Your task to perform on an android device: delete browsing data in the chrome app Image 0: 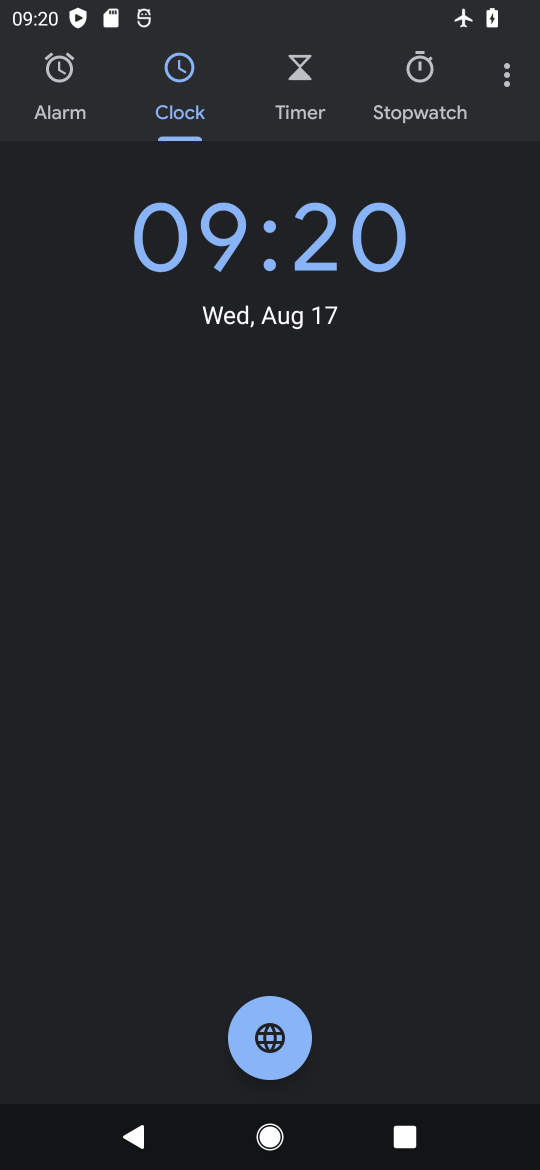
Step 0: press home button
Your task to perform on an android device: delete browsing data in the chrome app Image 1: 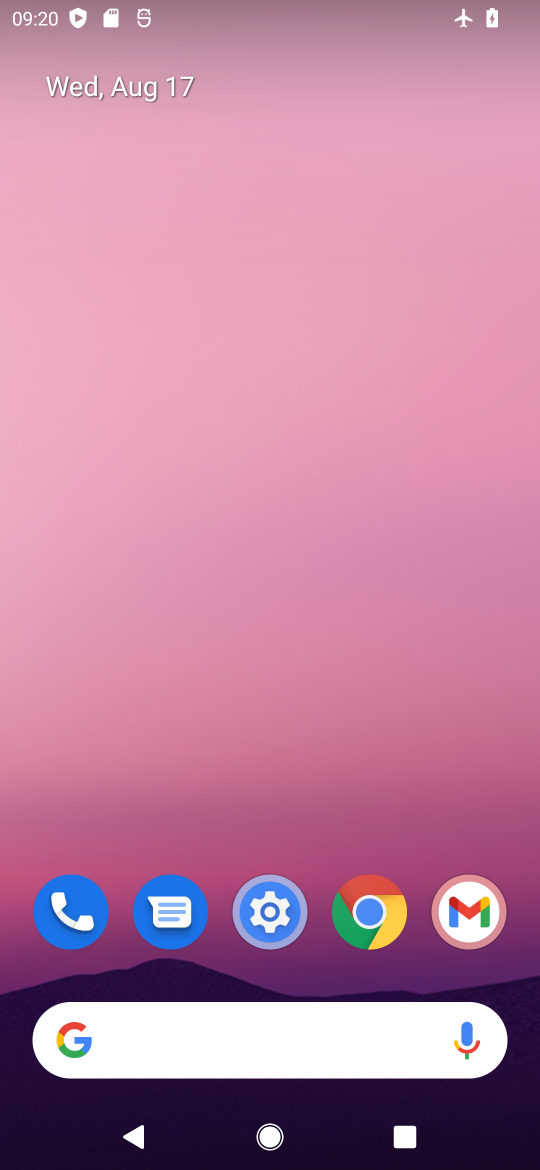
Step 1: click (408, 922)
Your task to perform on an android device: delete browsing data in the chrome app Image 2: 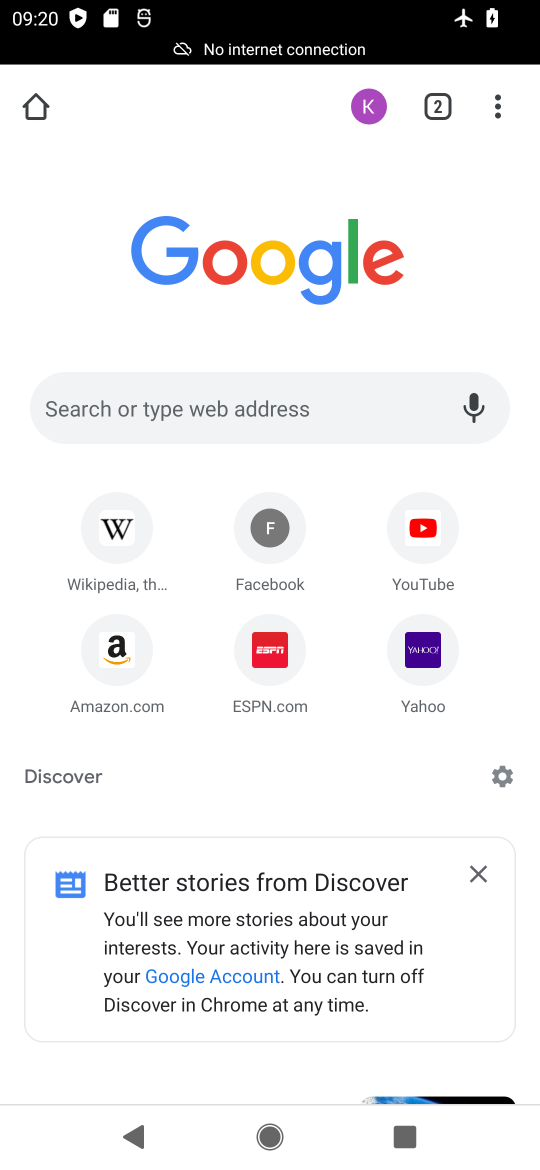
Step 2: click (508, 108)
Your task to perform on an android device: delete browsing data in the chrome app Image 3: 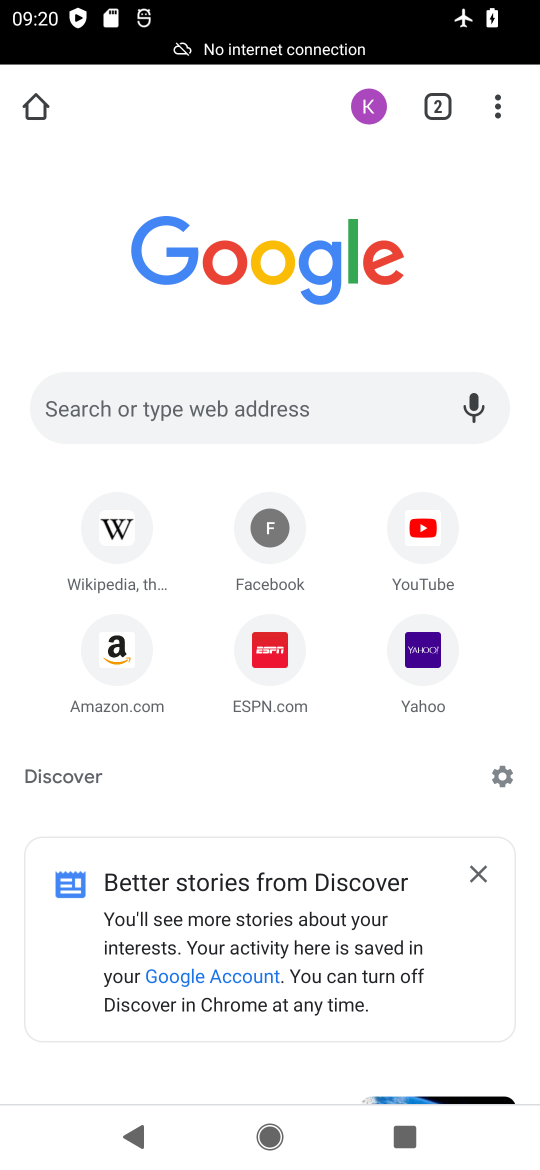
Step 3: click (488, 95)
Your task to perform on an android device: delete browsing data in the chrome app Image 4: 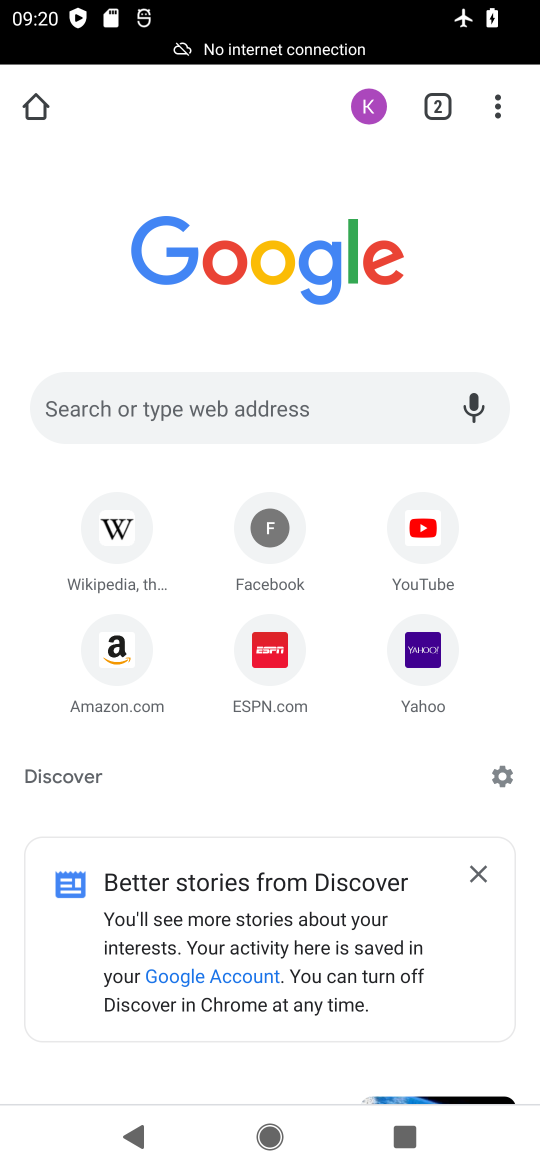
Step 4: click (494, 111)
Your task to perform on an android device: delete browsing data in the chrome app Image 5: 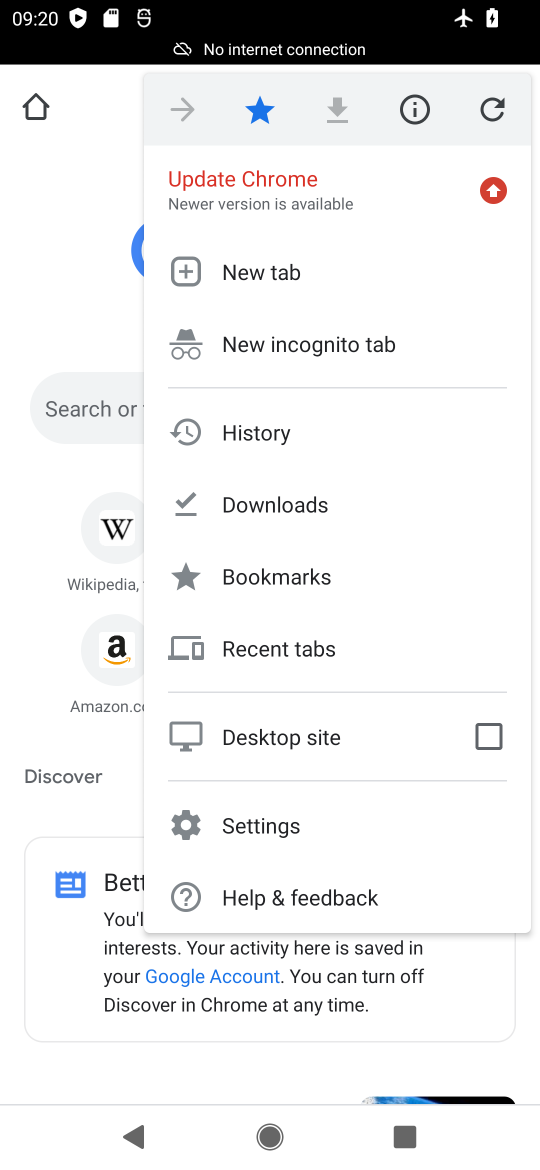
Step 5: click (269, 430)
Your task to perform on an android device: delete browsing data in the chrome app Image 6: 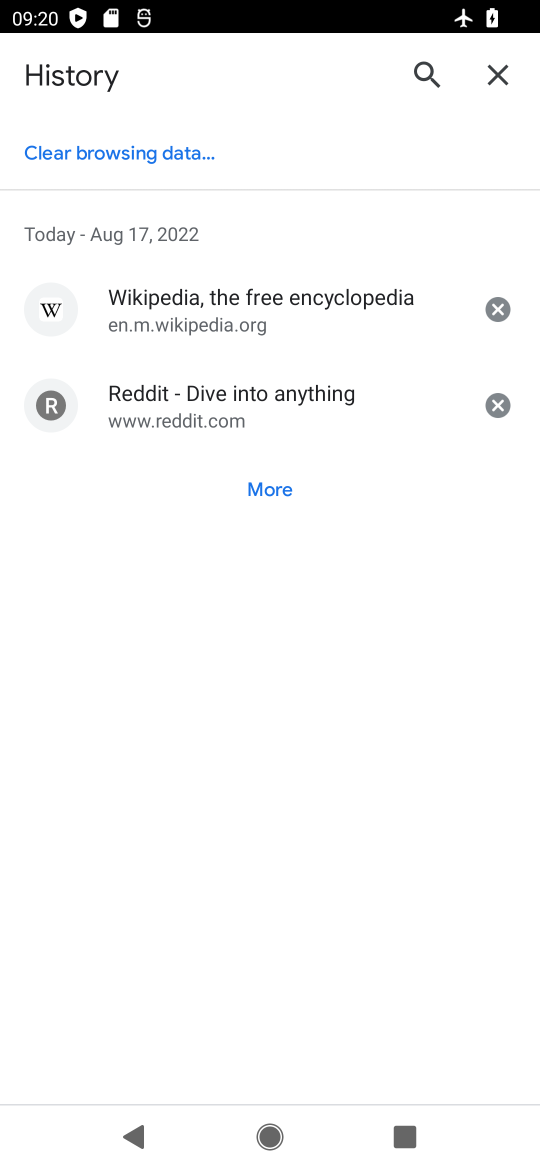
Step 6: click (165, 151)
Your task to perform on an android device: delete browsing data in the chrome app Image 7: 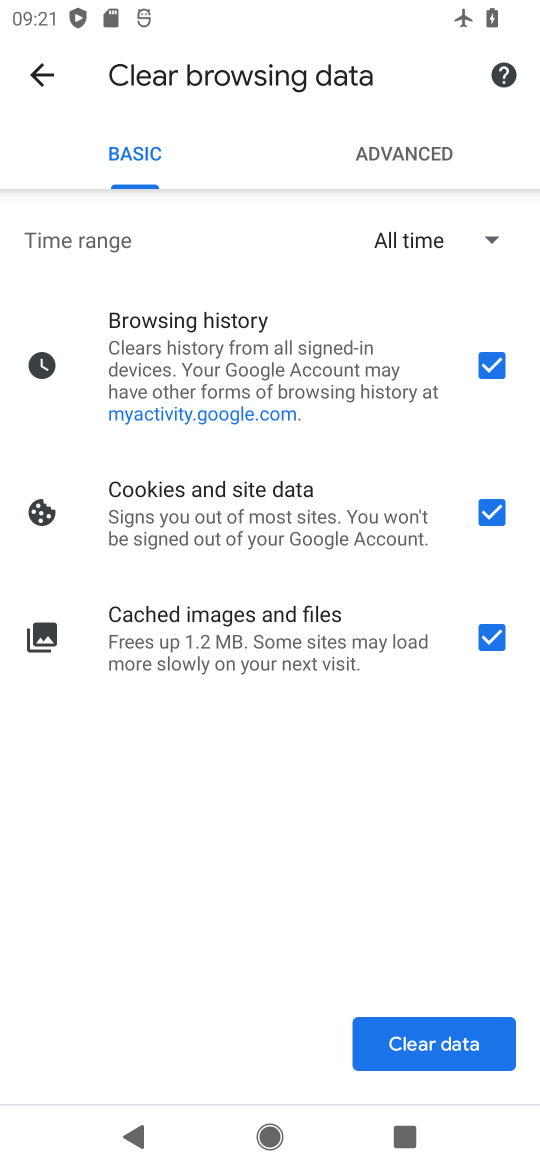
Step 7: click (450, 1024)
Your task to perform on an android device: delete browsing data in the chrome app Image 8: 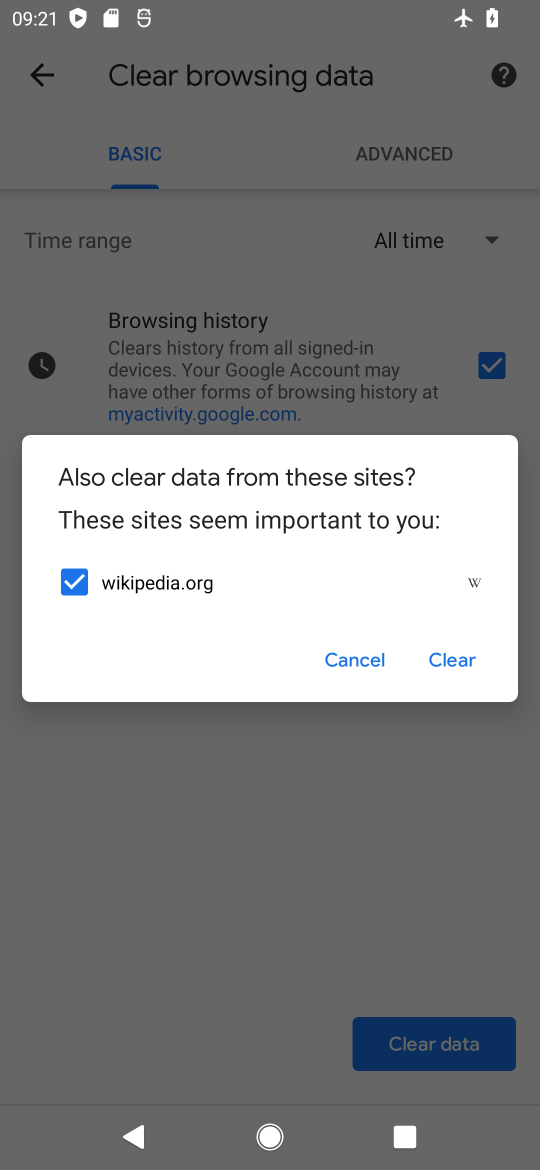
Step 8: click (460, 651)
Your task to perform on an android device: delete browsing data in the chrome app Image 9: 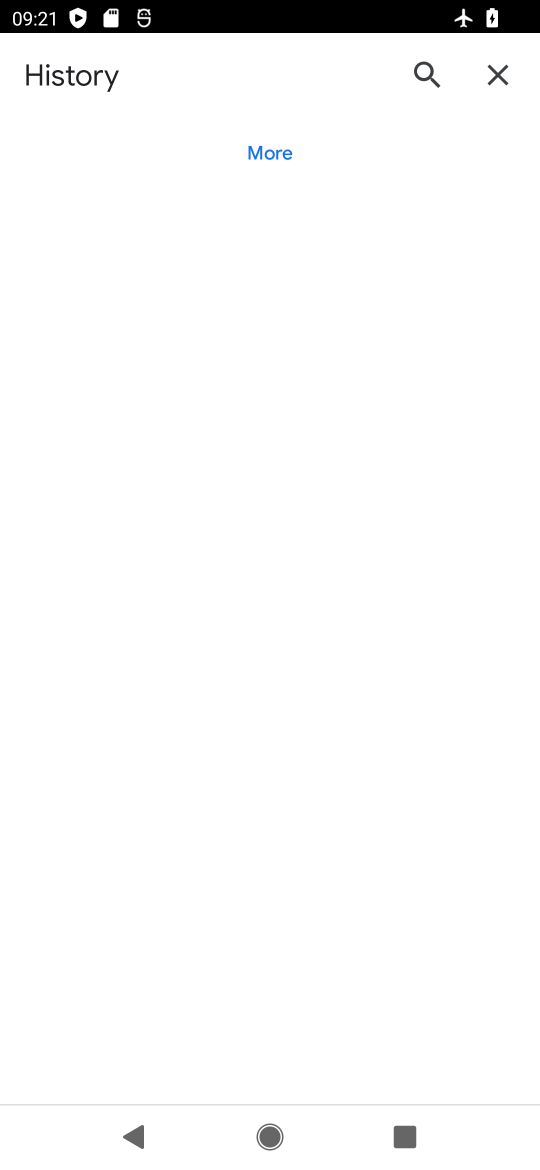
Step 9: task complete